Your task to perform on an android device: What's the weather? Image 0: 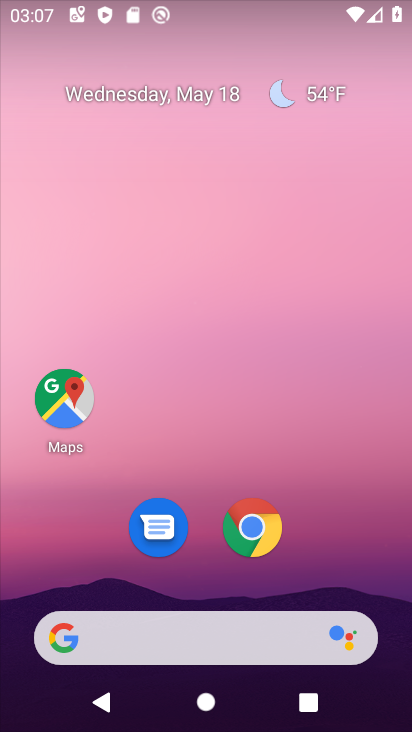
Step 0: drag from (234, 596) to (211, 63)
Your task to perform on an android device: What's the weather? Image 1: 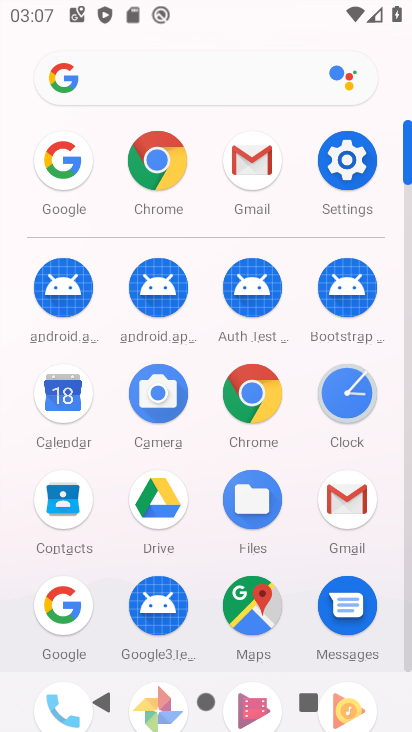
Step 1: click (70, 600)
Your task to perform on an android device: What's the weather? Image 2: 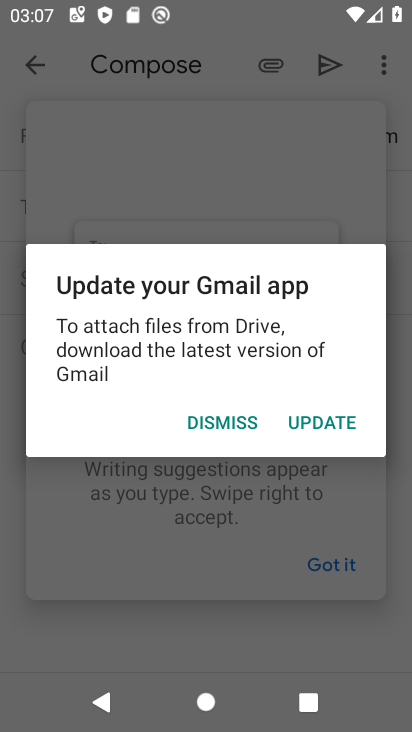
Step 2: click (233, 428)
Your task to perform on an android device: What's the weather? Image 3: 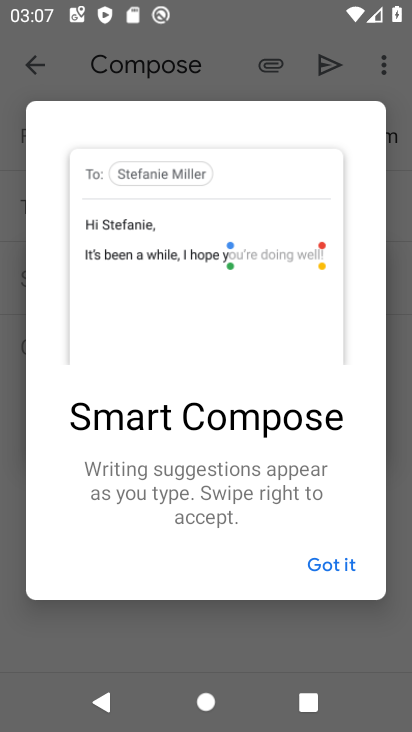
Step 3: click (317, 562)
Your task to perform on an android device: What's the weather? Image 4: 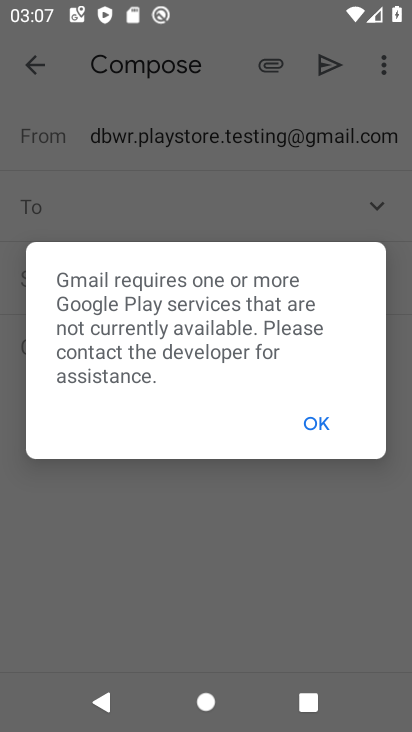
Step 4: click (334, 417)
Your task to perform on an android device: What's the weather? Image 5: 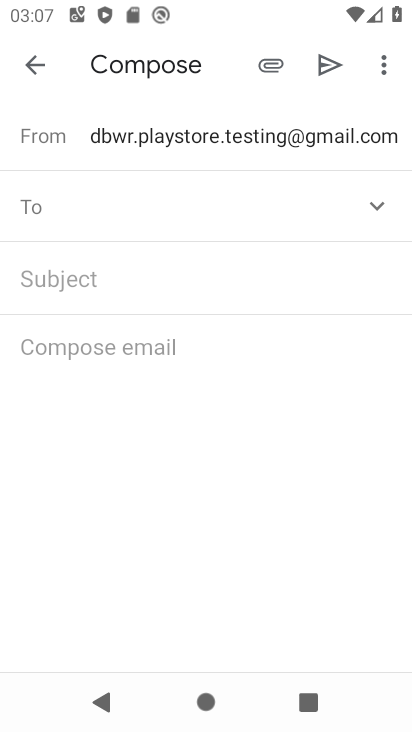
Step 5: click (47, 64)
Your task to perform on an android device: What's the weather? Image 6: 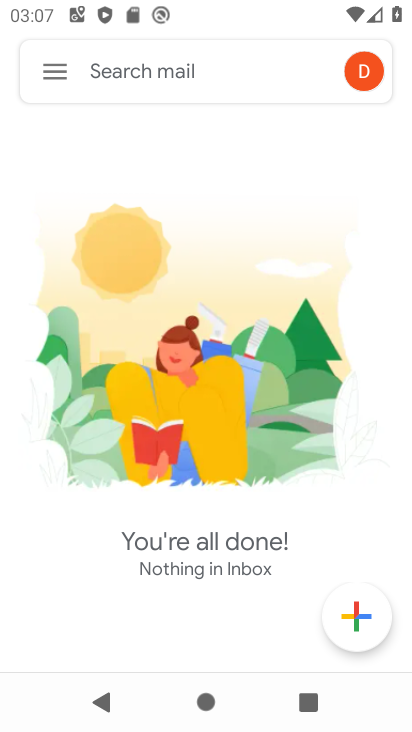
Step 6: press home button
Your task to perform on an android device: What's the weather? Image 7: 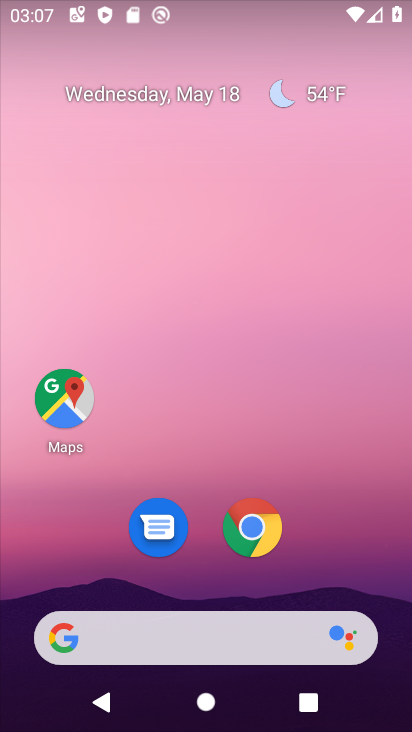
Step 7: click (237, 626)
Your task to perform on an android device: What's the weather? Image 8: 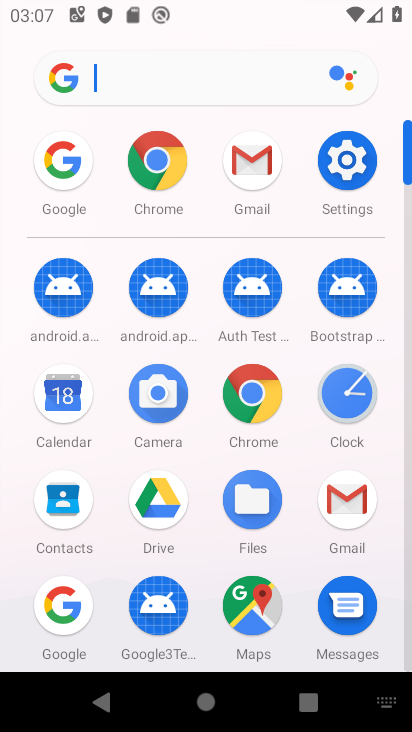
Step 8: click (70, 595)
Your task to perform on an android device: What's the weather? Image 9: 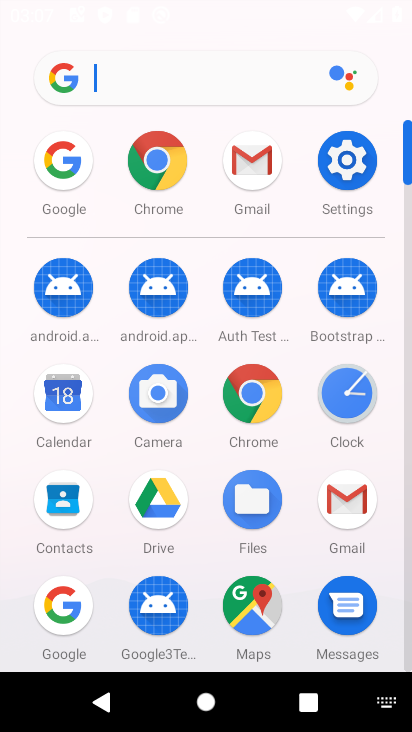
Step 9: click (58, 609)
Your task to perform on an android device: What's the weather? Image 10: 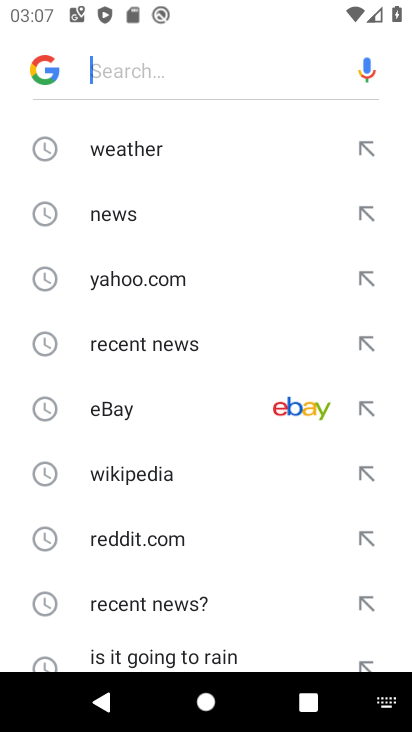
Step 10: click (178, 164)
Your task to perform on an android device: What's the weather? Image 11: 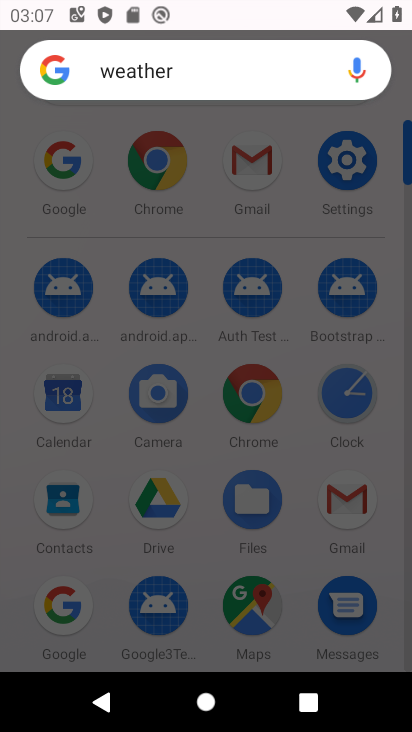
Step 11: task complete